Your task to perform on an android device: find photos in the google photos app Image 0: 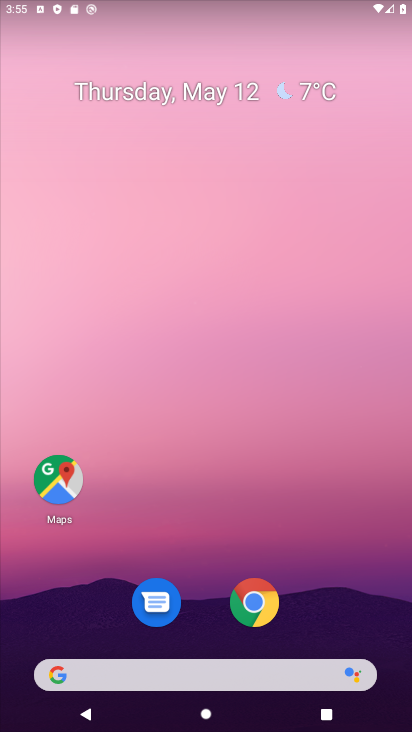
Step 0: drag from (318, 536) to (316, 29)
Your task to perform on an android device: find photos in the google photos app Image 1: 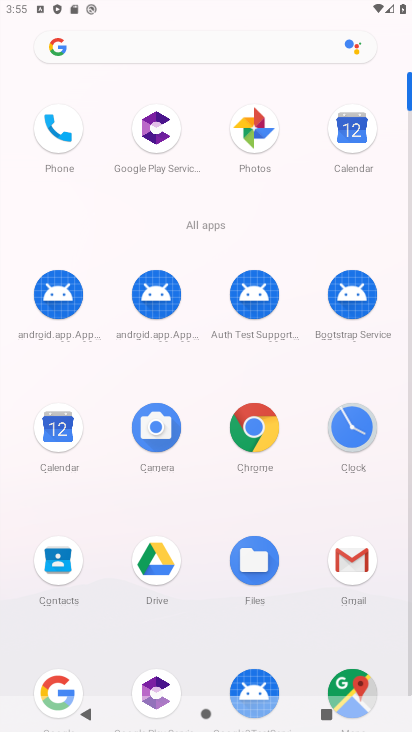
Step 1: click (243, 123)
Your task to perform on an android device: find photos in the google photos app Image 2: 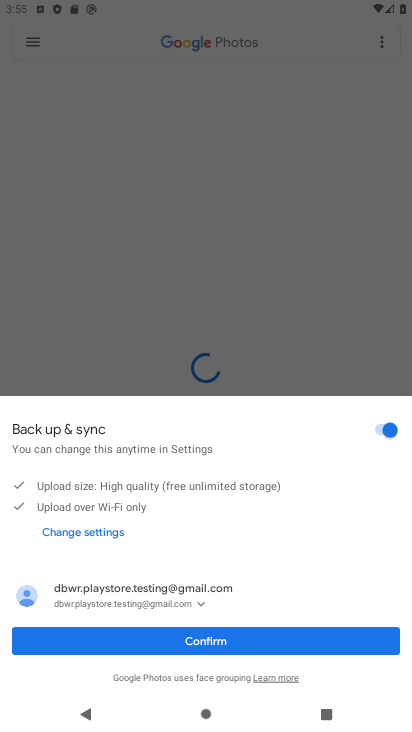
Step 2: click (315, 643)
Your task to perform on an android device: find photos in the google photos app Image 3: 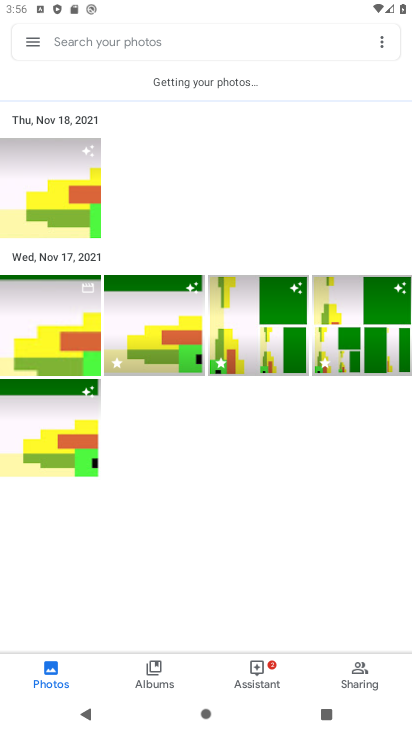
Step 3: task complete